Your task to perform on an android device: manage bookmarks in the chrome app Image 0: 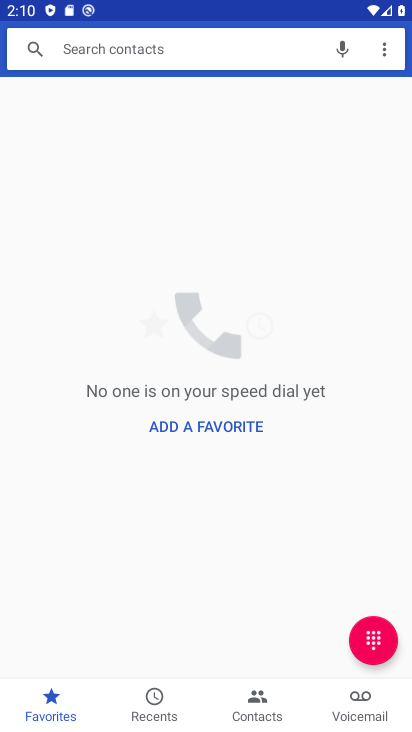
Step 0: press back button
Your task to perform on an android device: manage bookmarks in the chrome app Image 1: 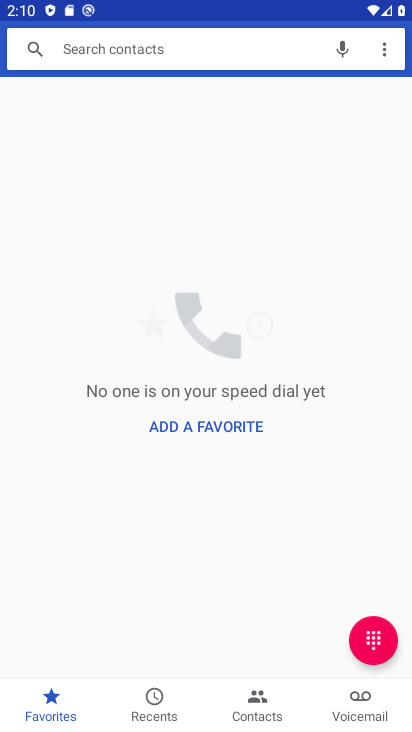
Step 1: press back button
Your task to perform on an android device: manage bookmarks in the chrome app Image 2: 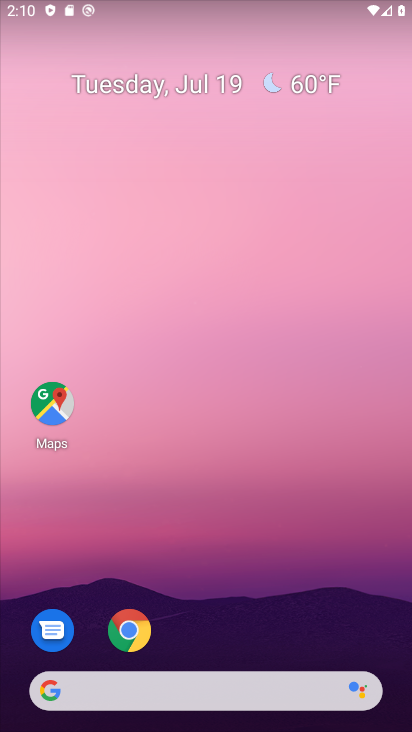
Step 2: drag from (208, 549) to (145, 127)
Your task to perform on an android device: manage bookmarks in the chrome app Image 3: 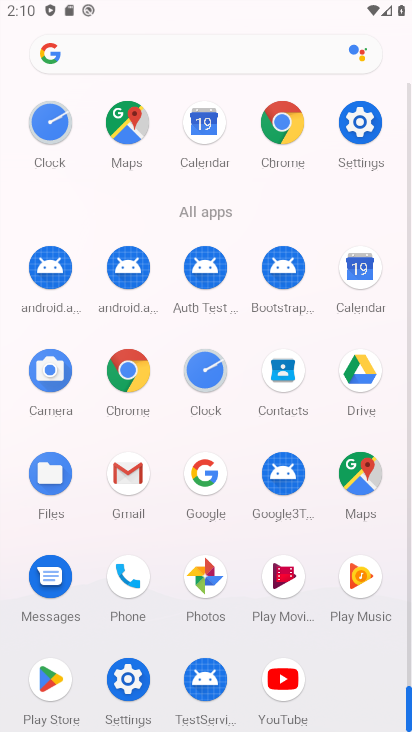
Step 3: click (357, 110)
Your task to perform on an android device: manage bookmarks in the chrome app Image 4: 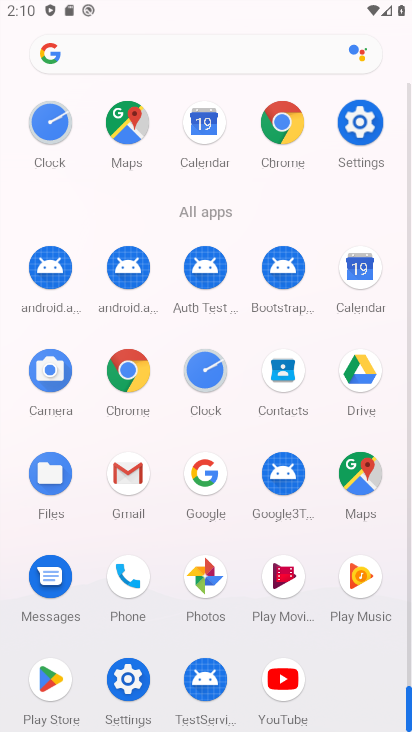
Step 4: click (357, 110)
Your task to perform on an android device: manage bookmarks in the chrome app Image 5: 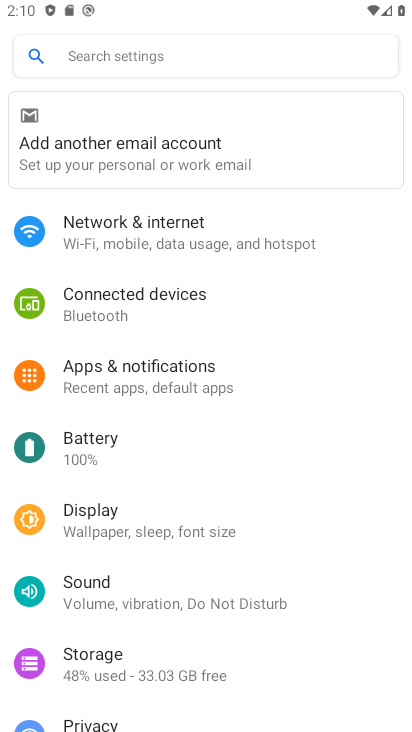
Step 5: drag from (167, 543) to (160, 400)
Your task to perform on an android device: manage bookmarks in the chrome app Image 6: 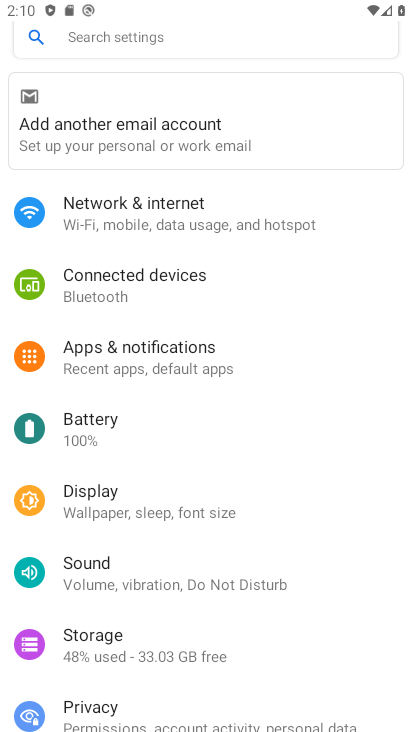
Step 6: drag from (163, 564) to (133, 358)
Your task to perform on an android device: manage bookmarks in the chrome app Image 7: 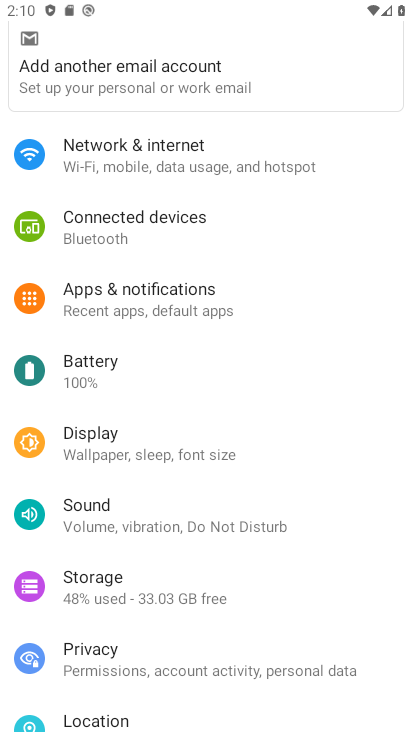
Step 7: drag from (88, 504) to (88, 299)
Your task to perform on an android device: manage bookmarks in the chrome app Image 8: 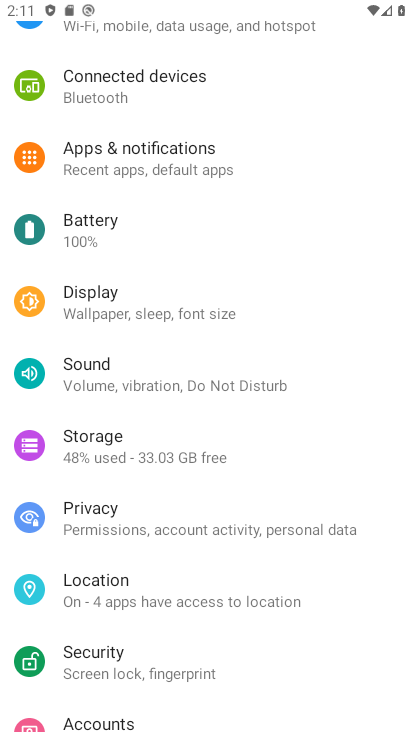
Step 8: click (138, 361)
Your task to perform on an android device: manage bookmarks in the chrome app Image 9: 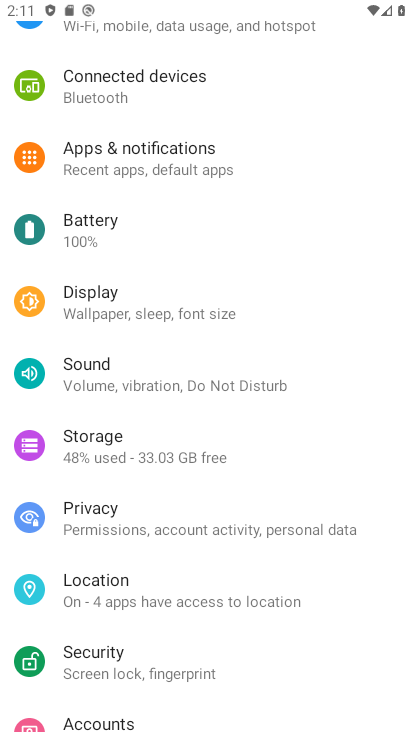
Step 9: drag from (117, 244) to (129, 514)
Your task to perform on an android device: manage bookmarks in the chrome app Image 10: 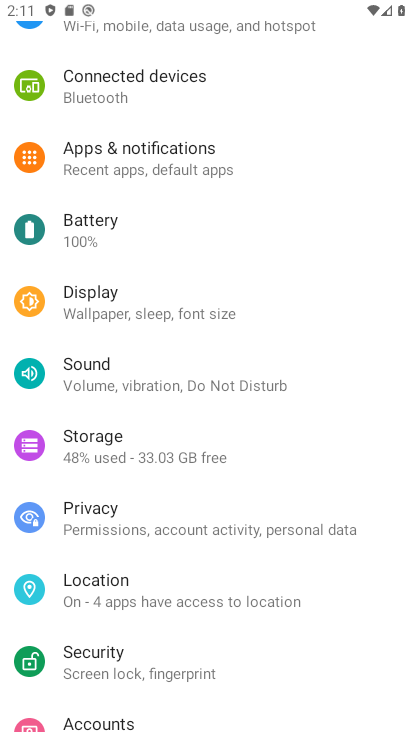
Step 10: drag from (54, 209) to (46, 457)
Your task to perform on an android device: manage bookmarks in the chrome app Image 11: 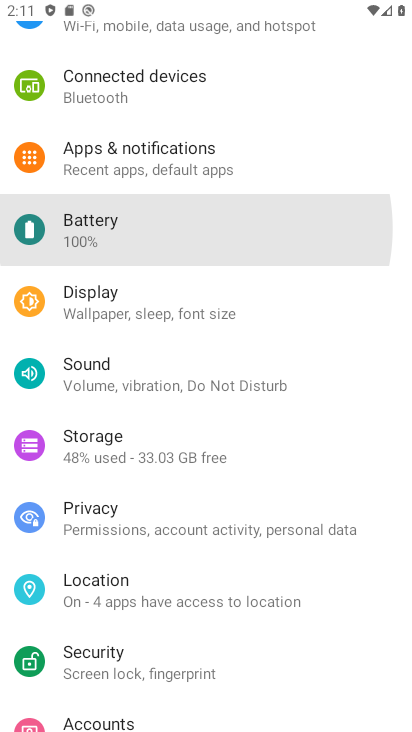
Step 11: drag from (87, 408) to (85, 582)
Your task to perform on an android device: manage bookmarks in the chrome app Image 12: 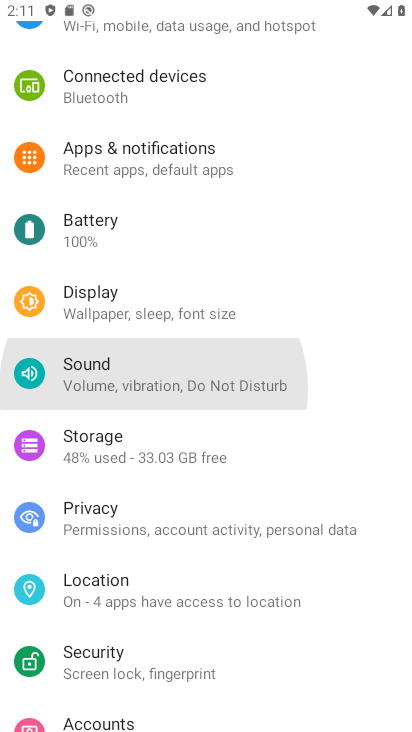
Step 12: drag from (77, 284) to (164, 668)
Your task to perform on an android device: manage bookmarks in the chrome app Image 13: 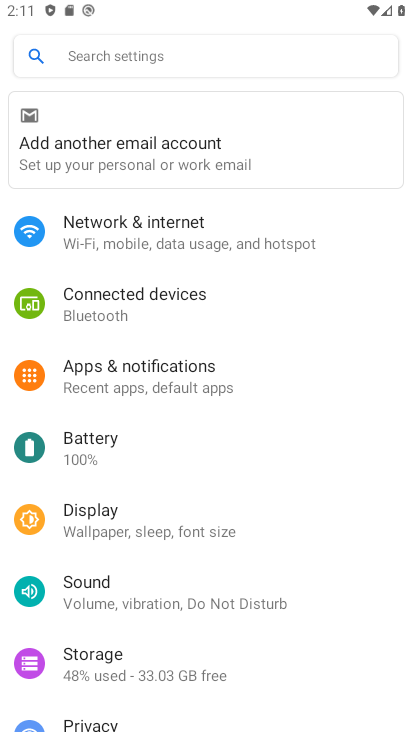
Step 13: drag from (187, 613) to (193, 318)
Your task to perform on an android device: manage bookmarks in the chrome app Image 14: 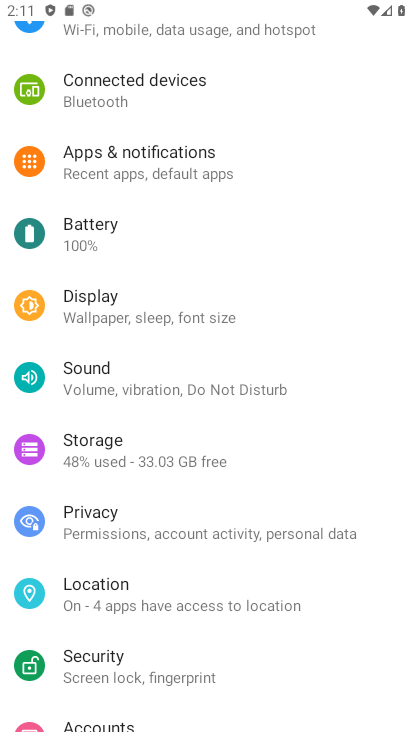
Step 14: press back button
Your task to perform on an android device: manage bookmarks in the chrome app Image 15: 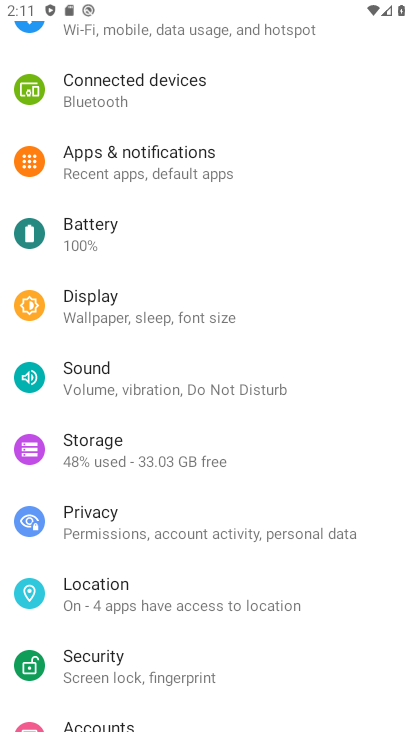
Step 15: press back button
Your task to perform on an android device: manage bookmarks in the chrome app Image 16: 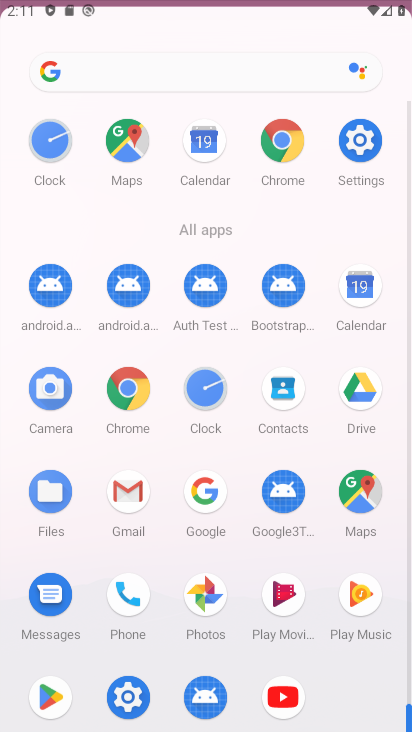
Step 16: press back button
Your task to perform on an android device: manage bookmarks in the chrome app Image 17: 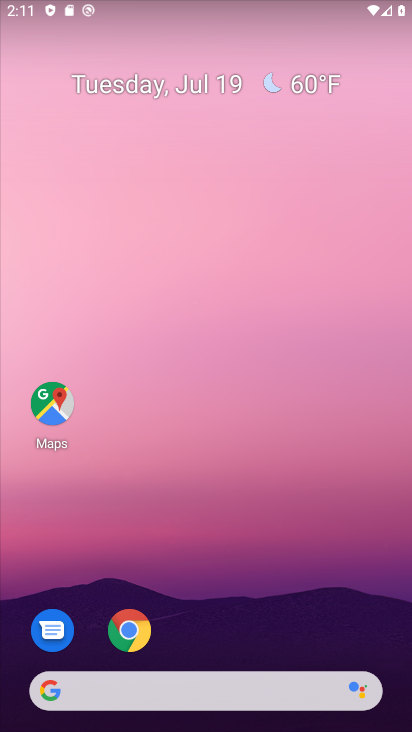
Step 17: drag from (235, 613) to (208, 158)
Your task to perform on an android device: manage bookmarks in the chrome app Image 18: 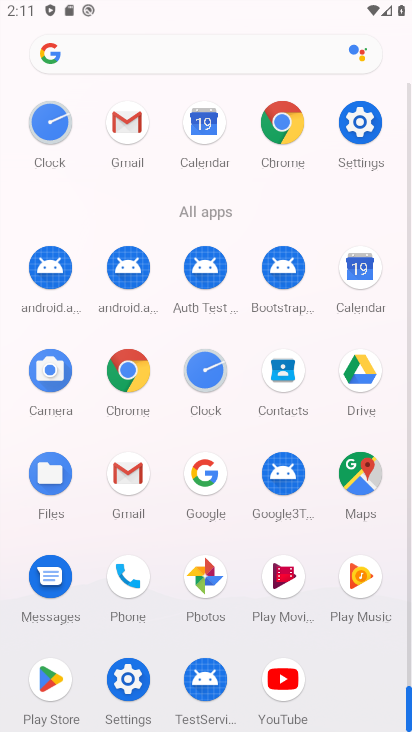
Step 18: click (290, 118)
Your task to perform on an android device: manage bookmarks in the chrome app Image 19: 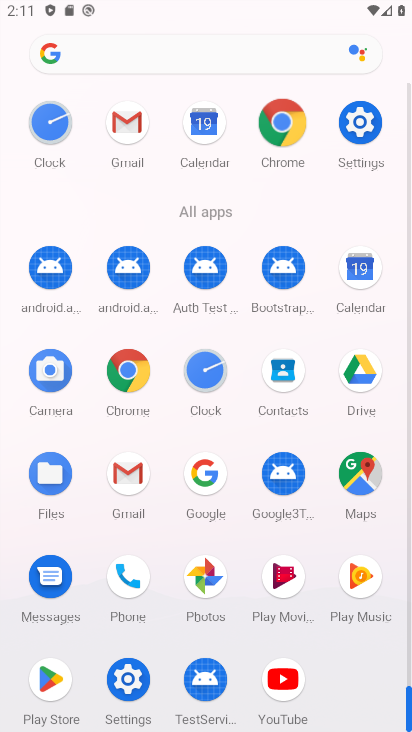
Step 19: click (289, 117)
Your task to perform on an android device: manage bookmarks in the chrome app Image 20: 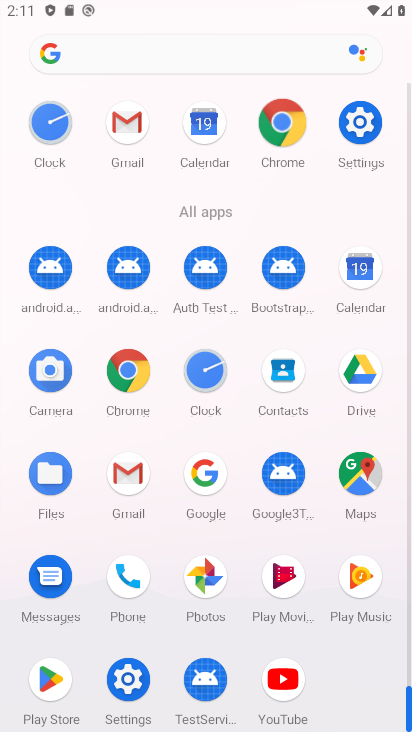
Step 20: click (289, 117)
Your task to perform on an android device: manage bookmarks in the chrome app Image 21: 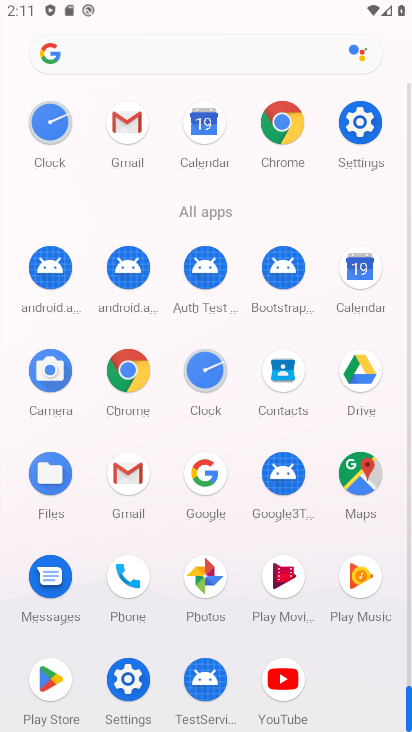
Step 21: click (281, 123)
Your task to perform on an android device: manage bookmarks in the chrome app Image 22: 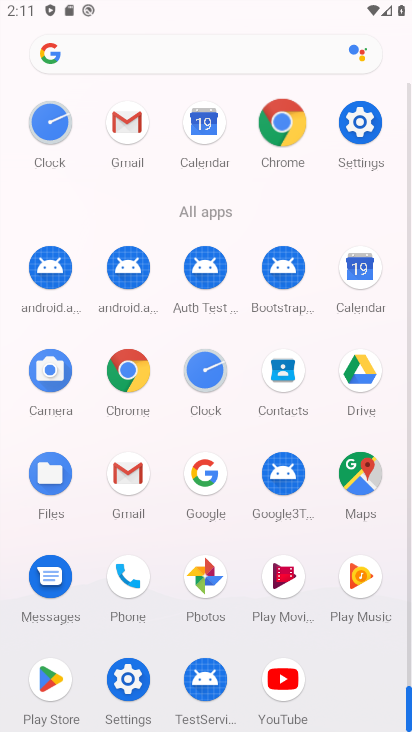
Step 22: click (297, 113)
Your task to perform on an android device: manage bookmarks in the chrome app Image 23: 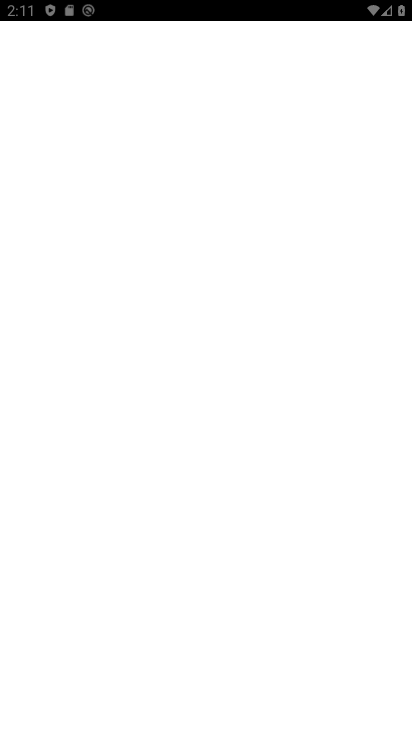
Step 23: click (297, 117)
Your task to perform on an android device: manage bookmarks in the chrome app Image 24: 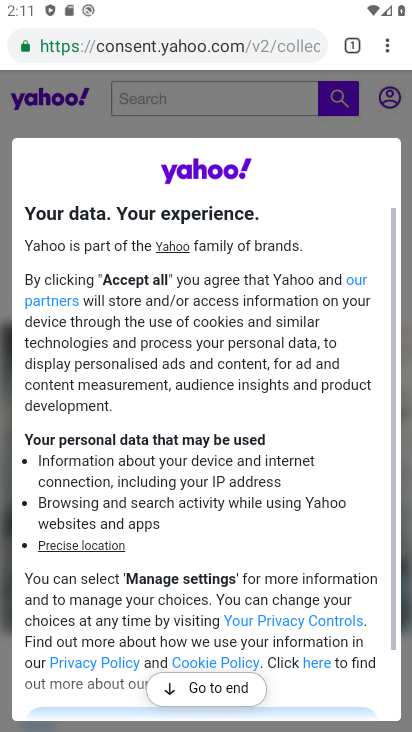
Step 24: drag from (381, 46) to (244, 180)
Your task to perform on an android device: manage bookmarks in the chrome app Image 25: 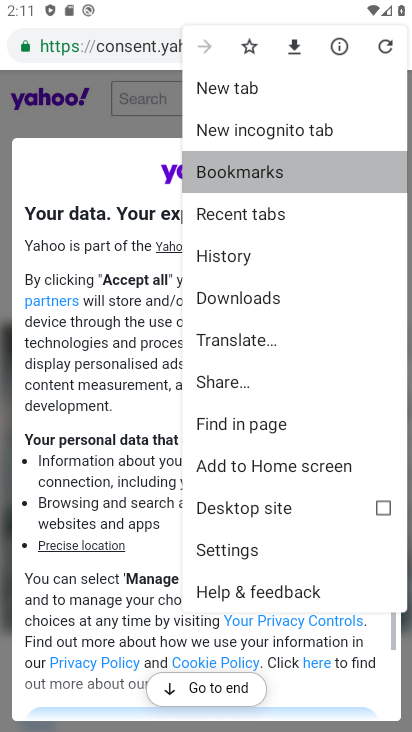
Step 25: click (246, 178)
Your task to perform on an android device: manage bookmarks in the chrome app Image 26: 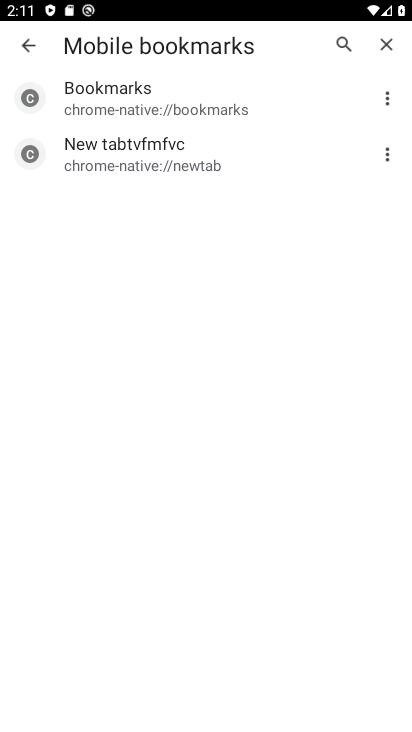
Step 26: click (389, 94)
Your task to perform on an android device: manage bookmarks in the chrome app Image 27: 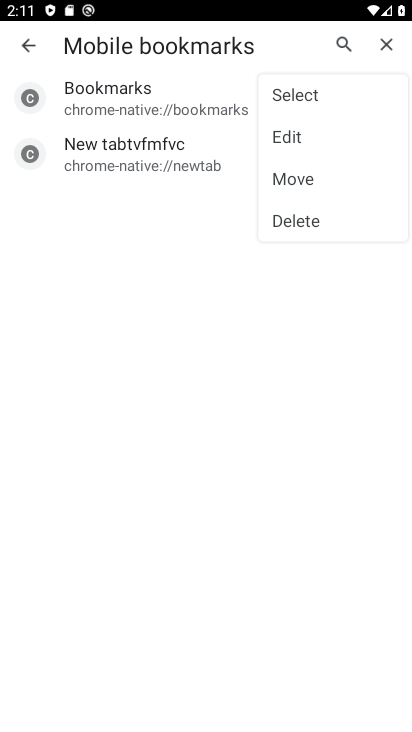
Step 27: click (285, 176)
Your task to perform on an android device: manage bookmarks in the chrome app Image 28: 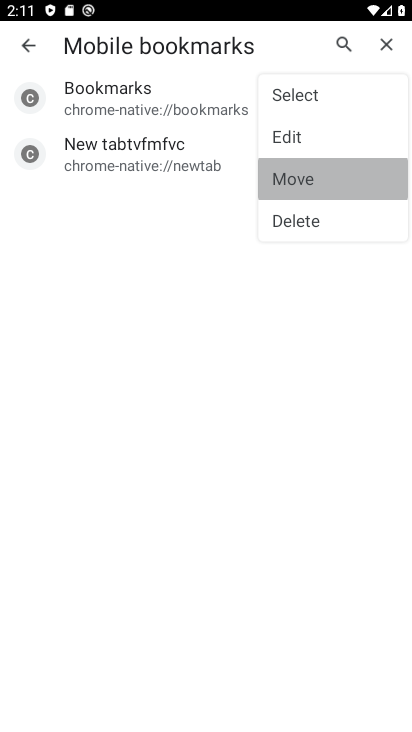
Step 28: click (288, 177)
Your task to perform on an android device: manage bookmarks in the chrome app Image 29: 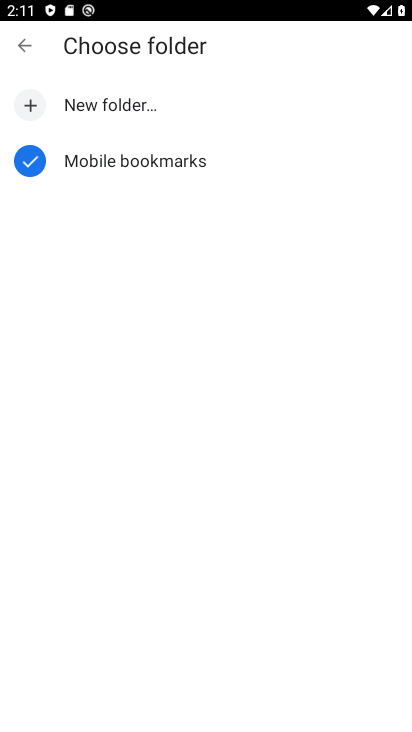
Step 29: task complete